Your task to perform on an android device: Open settings Image 0: 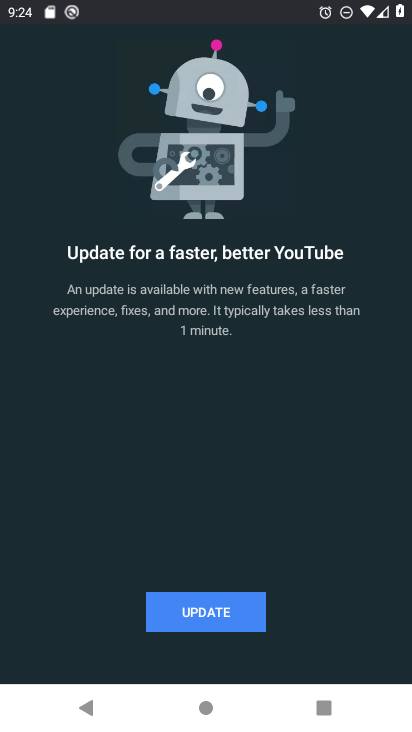
Step 0: press home button
Your task to perform on an android device: Open settings Image 1: 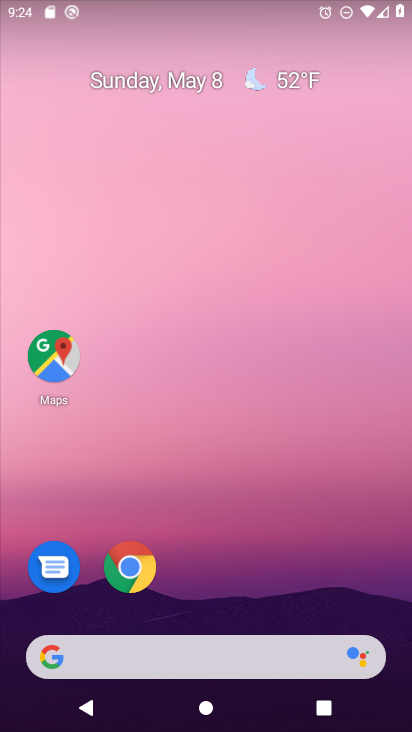
Step 1: drag from (280, 570) to (187, 221)
Your task to perform on an android device: Open settings Image 2: 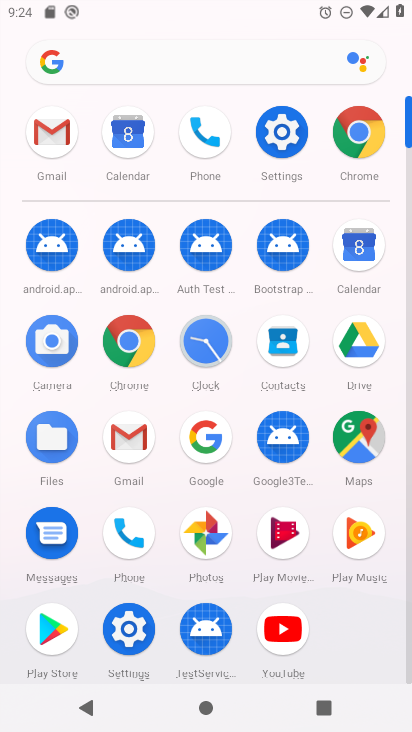
Step 2: click (254, 125)
Your task to perform on an android device: Open settings Image 3: 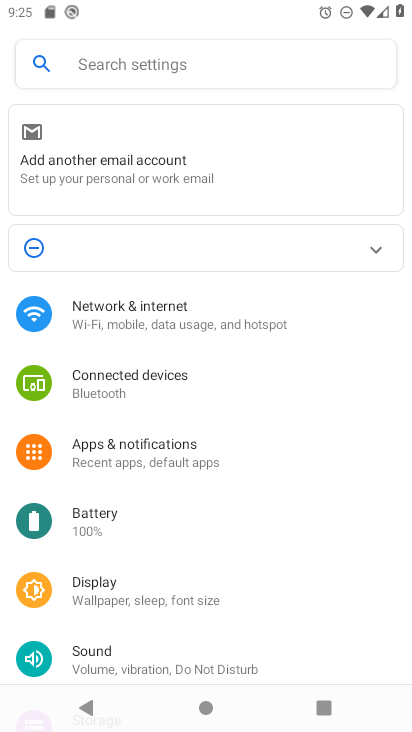
Step 3: task complete